Your task to perform on an android device: add a contact Image 0: 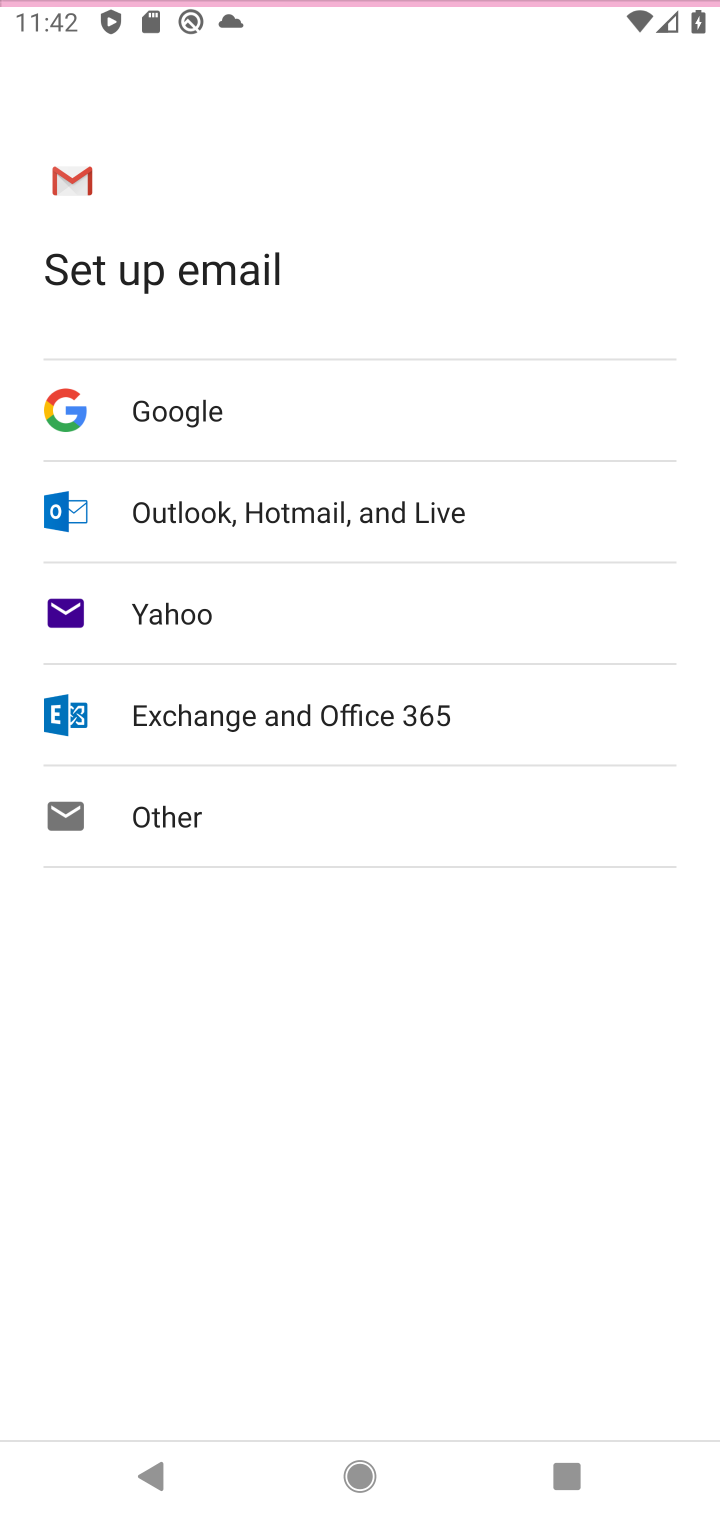
Step 0: press home button
Your task to perform on an android device: add a contact Image 1: 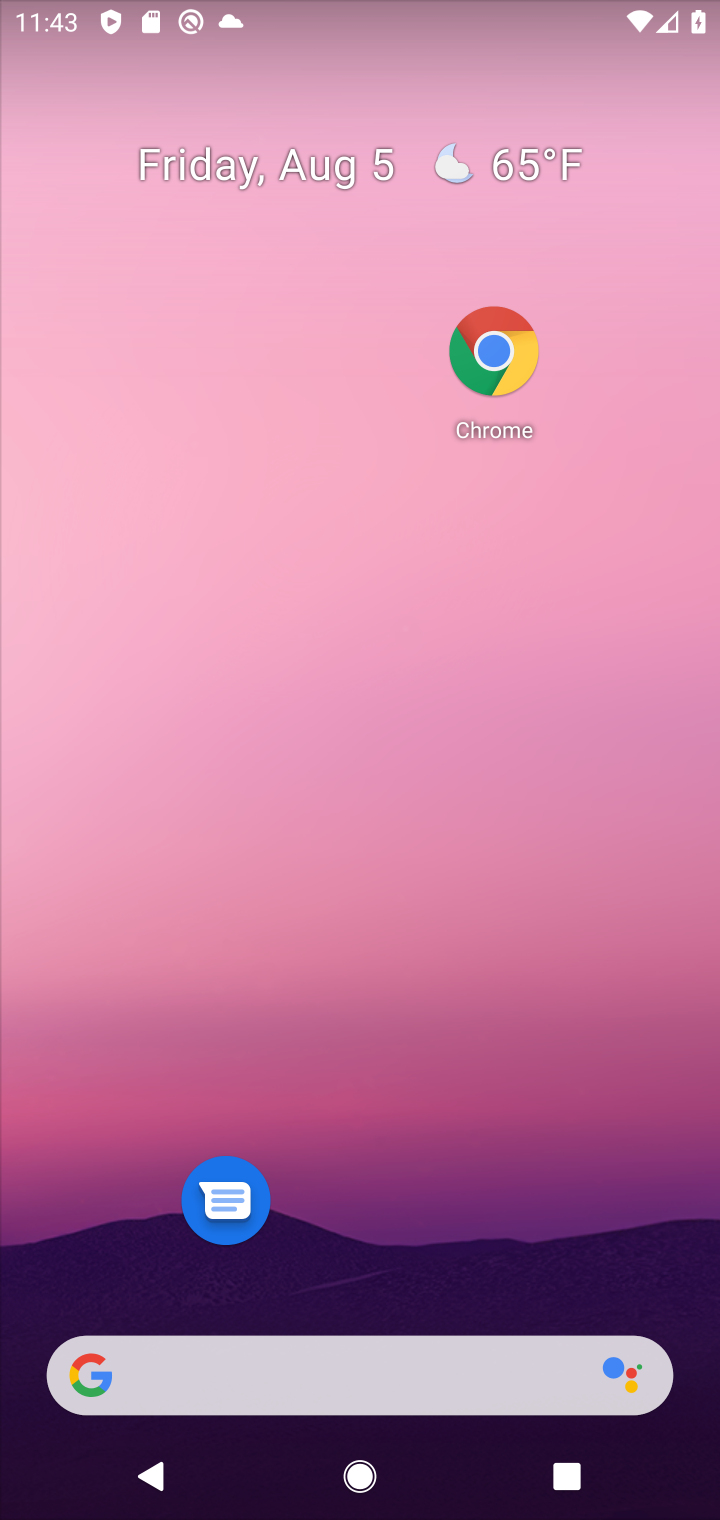
Step 1: drag from (396, 1334) to (470, 355)
Your task to perform on an android device: add a contact Image 2: 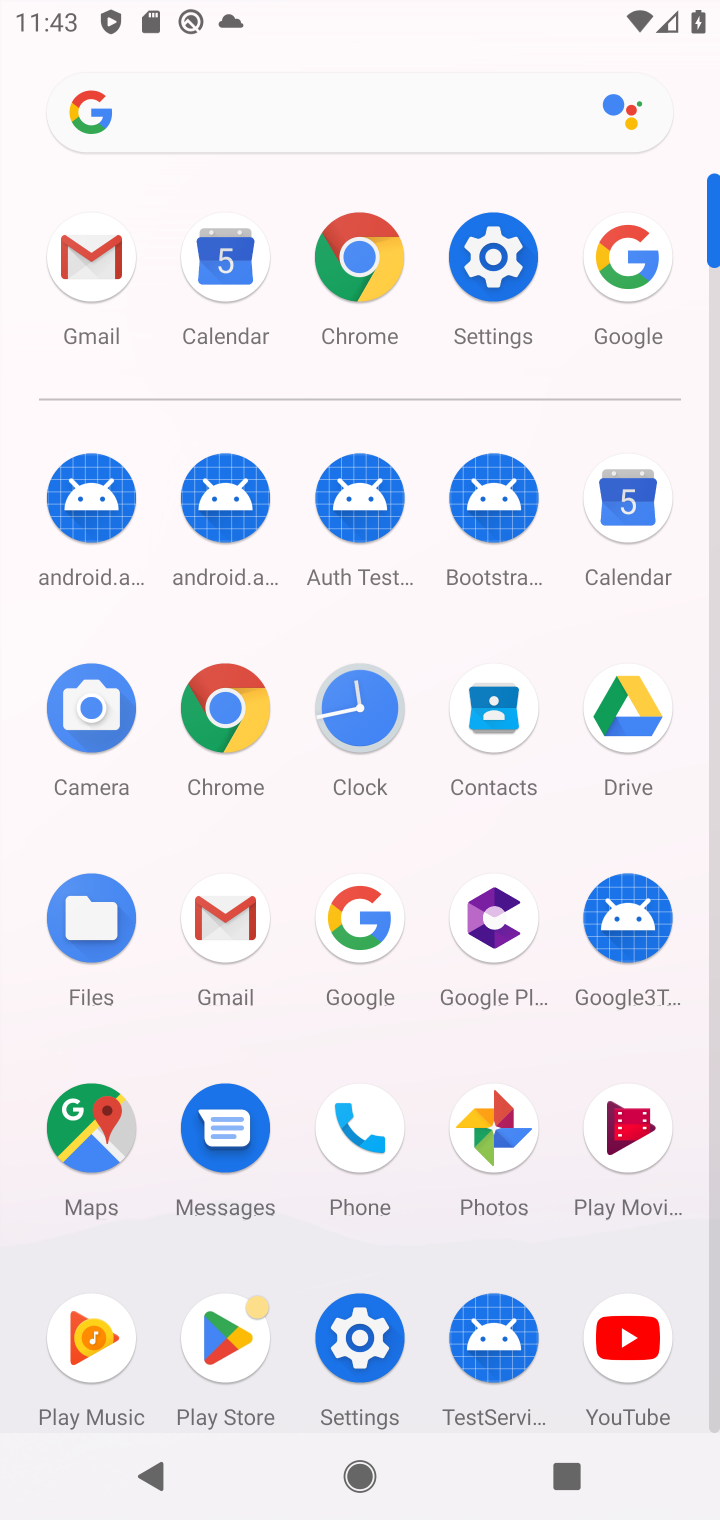
Step 2: click (491, 737)
Your task to perform on an android device: add a contact Image 3: 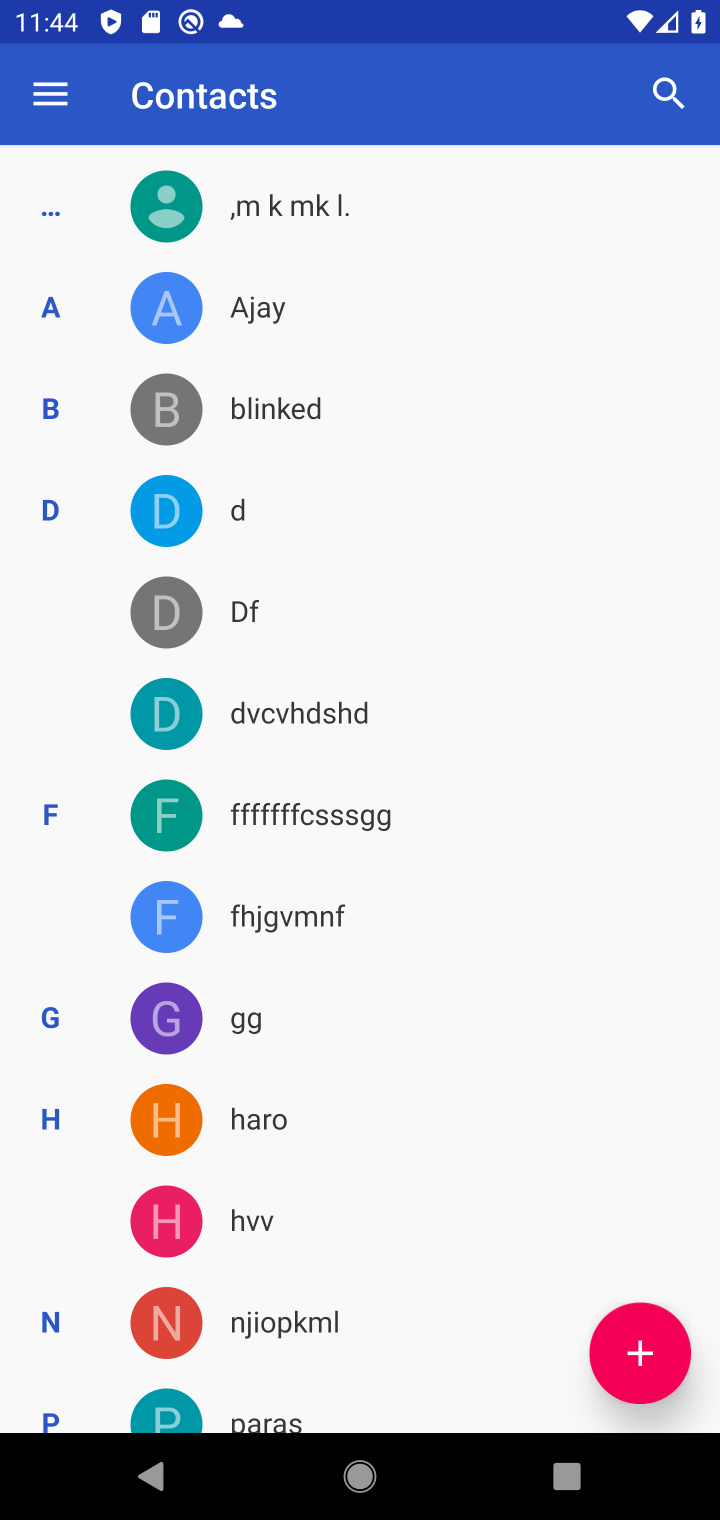
Step 3: click (636, 1345)
Your task to perform on an android device: add a contact Image 4: 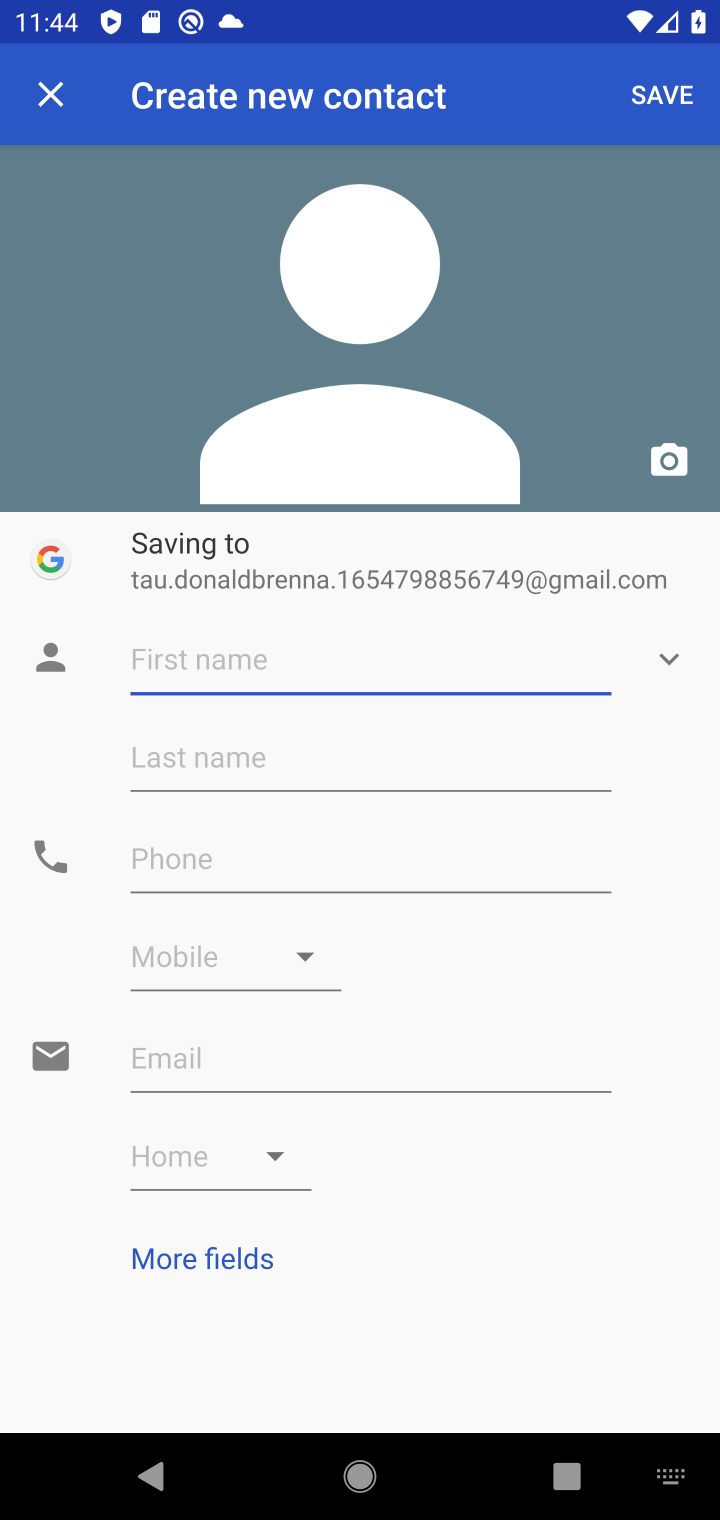
Step 4: type "jjdgfxfdfcvb"
Your task to perform on an android device: add a contact Image 5: 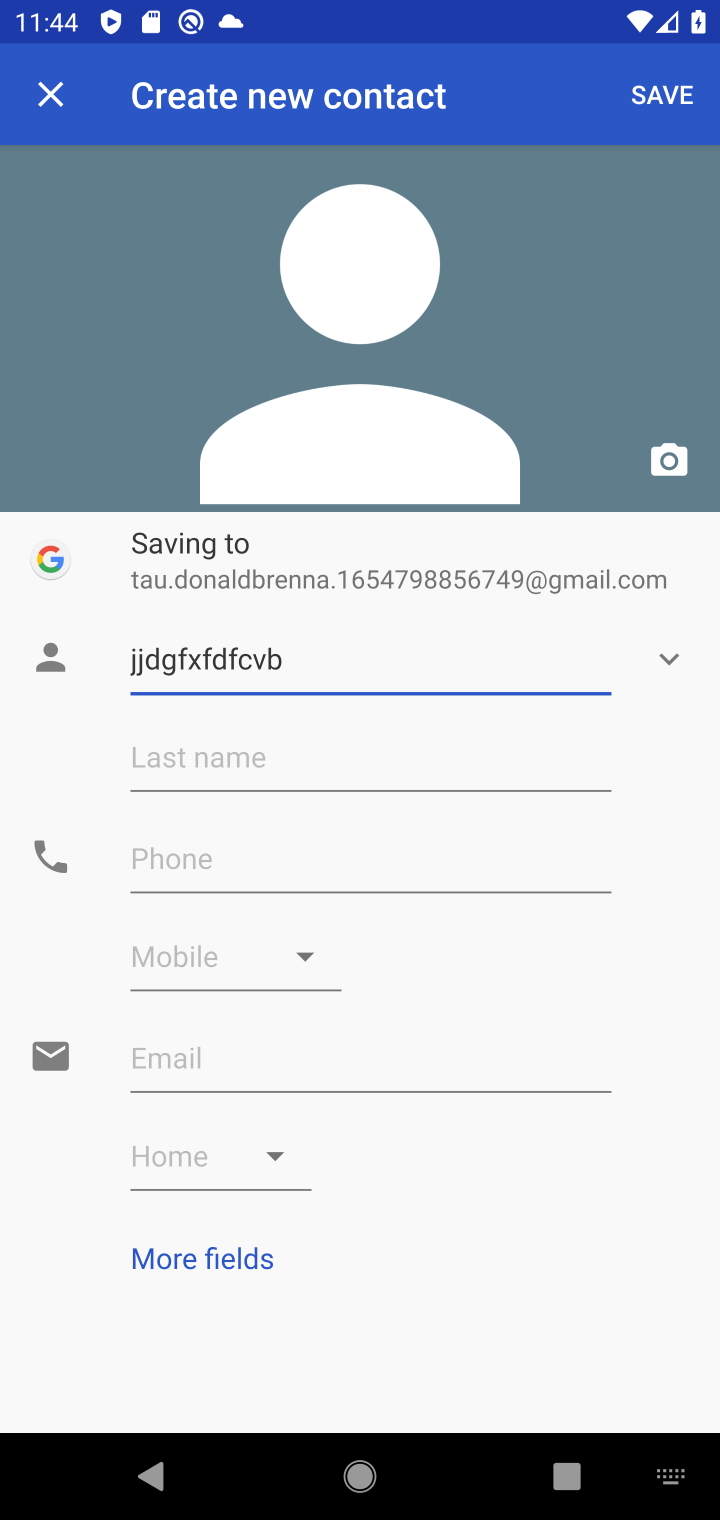
Step 5: click (294, 876)
Your task to perform on an android device: add a contact Image 6: 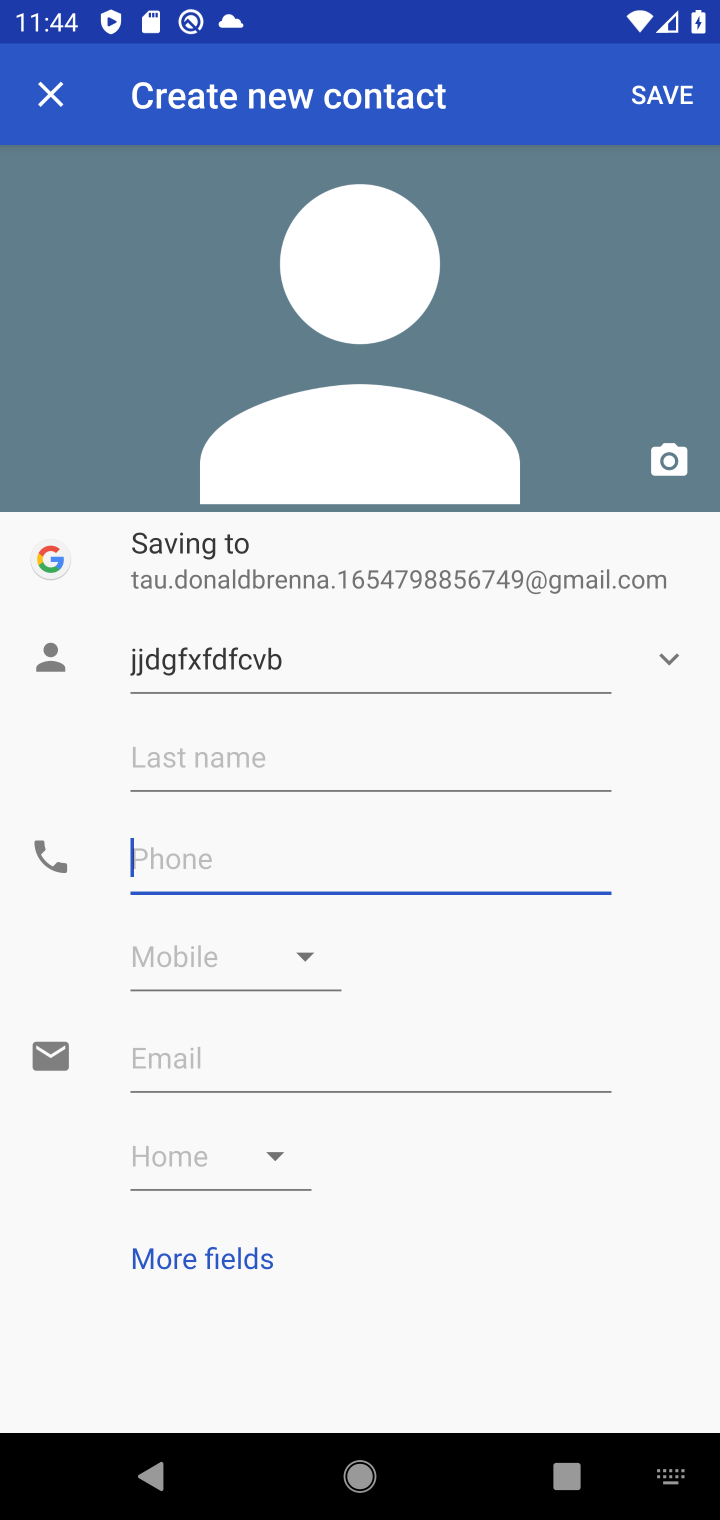
Step 6: type "9875456"
Your task to perform on an android device: add a contact Image 7: 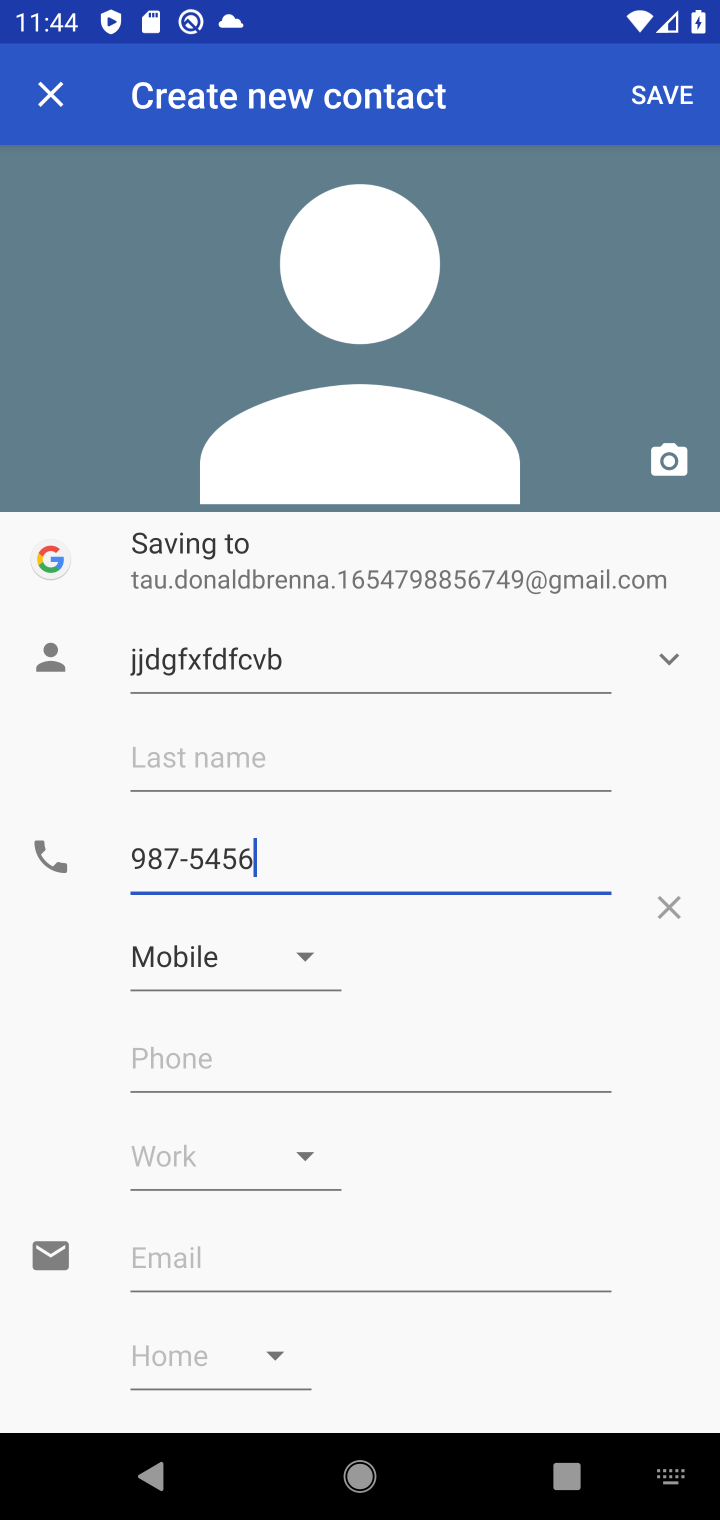
Step 7: click (677, 100)
Your task to perform on an android device: add a contact Image 8: 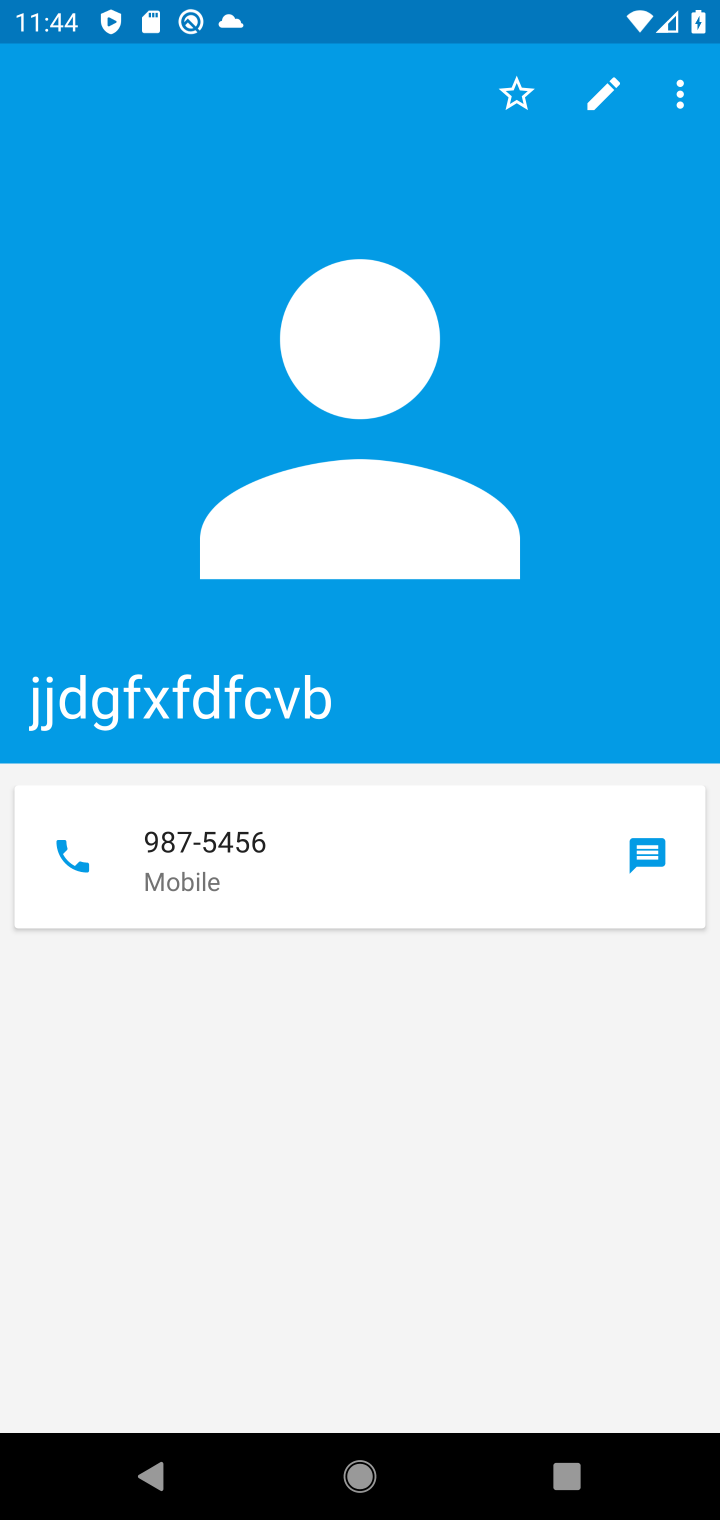
Step 8: task complete